Your task to perform on an android device: Do I have any events today? Image 0: 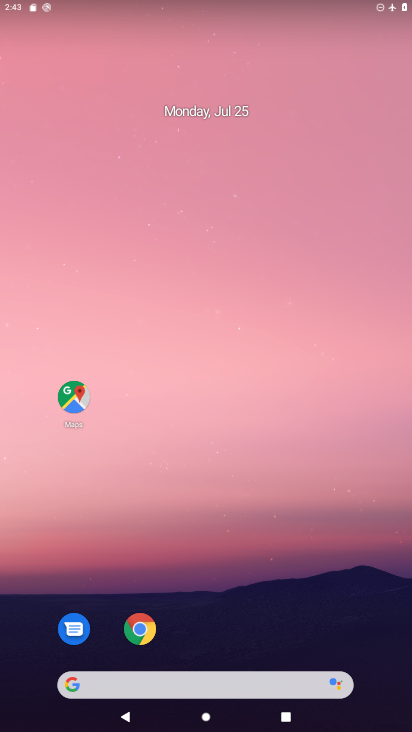
Step 0: drag from (224, 450) to (164, 0)
Your task to perform on an android device: Do I have any events today? Image 1: 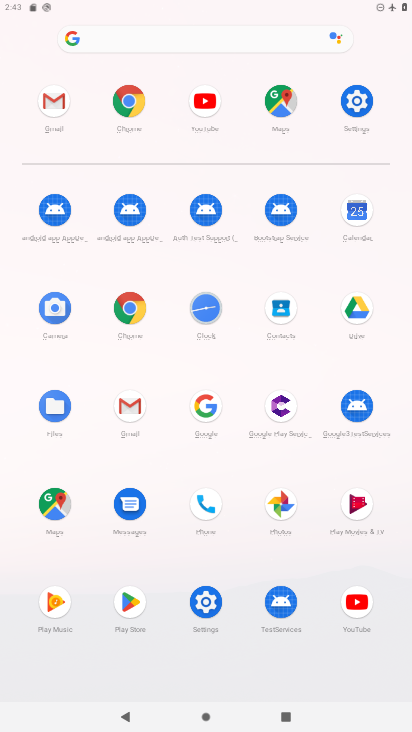
Step 1: click (338, 218)
Your task to perform on an android device: Do I have any events today? Image 2: 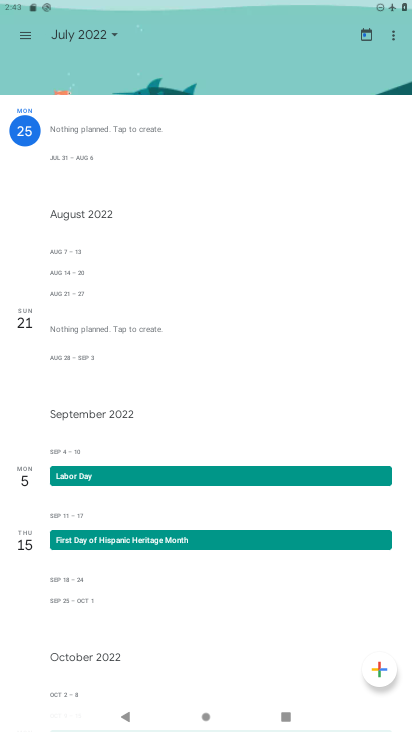
Step 2: click (91, 38)
Your task to perform on an android device: Do I have any events today? Image 3: 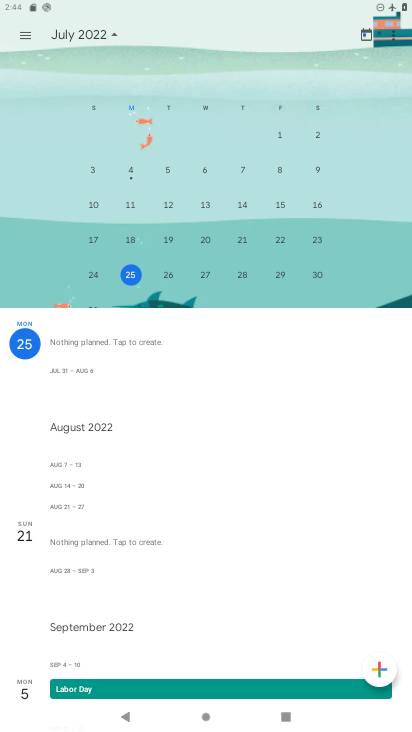
Step 3: task complete